Your task to perform on an android device: check out phone information Image 0: 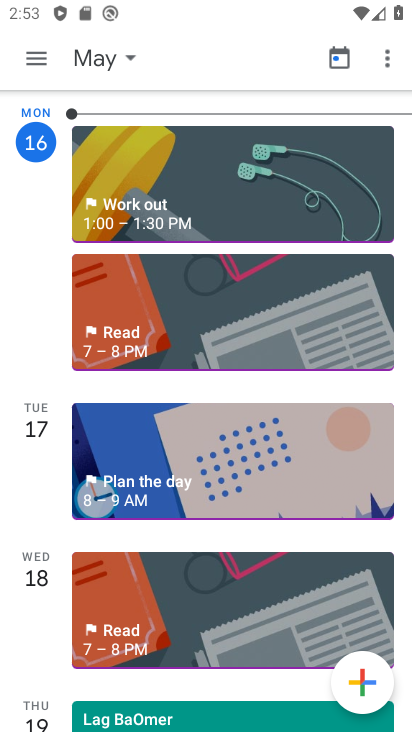
Step 0: press home button
Your task to perform on an android device: check out phone information Image 1: 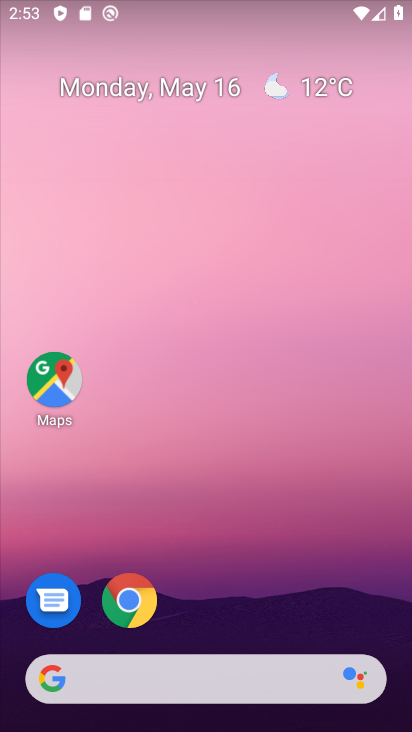
Step 1: drag from (225, 650) to (409, 475)
Your task to perform on an android device: check out phone information Image 2: 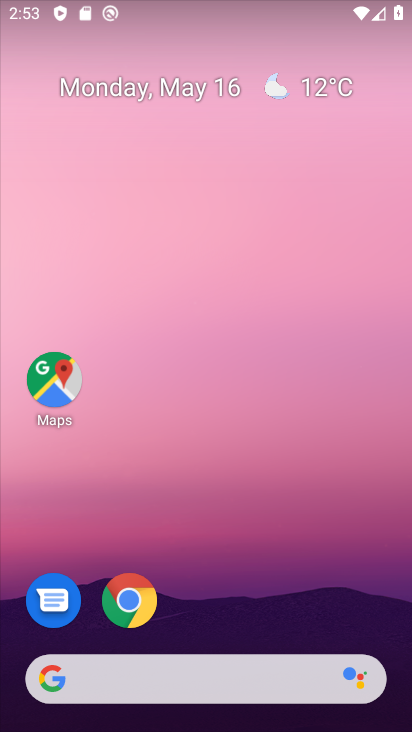
Step 2: drag from (258, 653) to (367, 322)
Your task to perform on an android device: check out phone information Image 3: 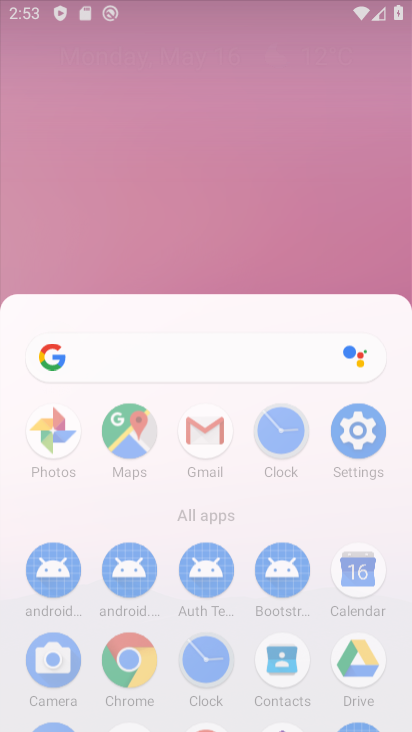
Step 3: click (361, 139)
Your task to perform on an android device: check out phone information Image 4: 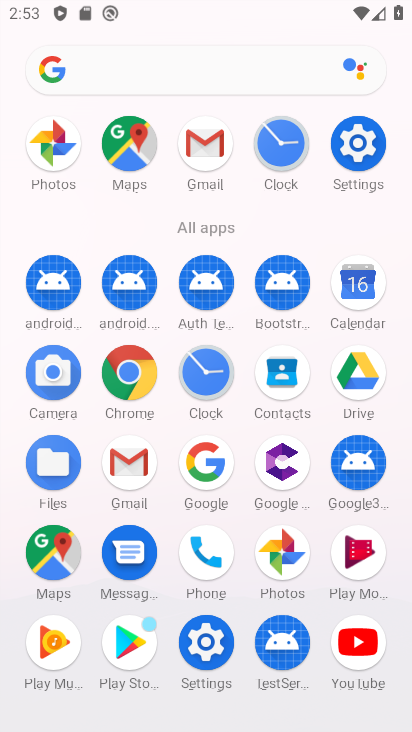
Step 4: click (357, 155)
Your task to perform on an android device: check out phone information Image 5: 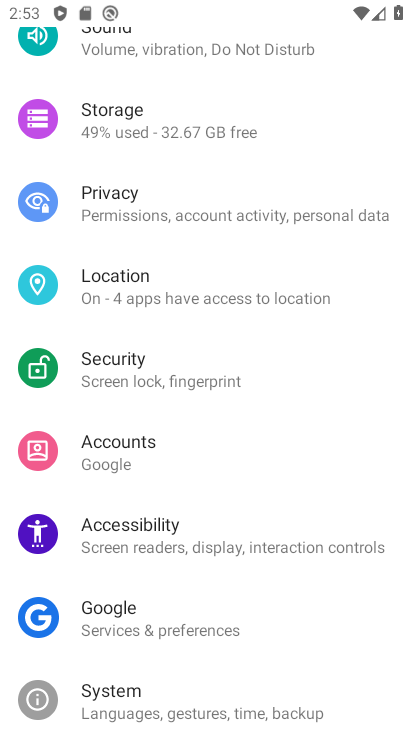
Step 5: drag from (301, 581) to (274, 62)
Your task to perform on an android device: check out phone information Image 6: 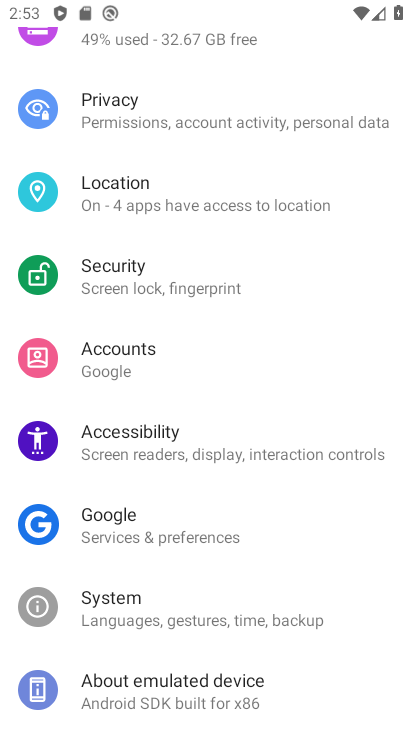
Step 6: click (161, 721)
Your task to perform on an android device: check out phone information Image 7: 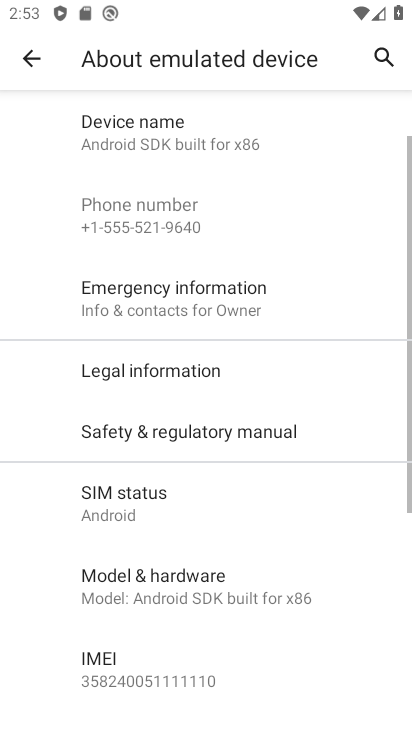
Step 7: task complete